Your task to perform on an android device: What's the weather going to be this weekend? Image 0: 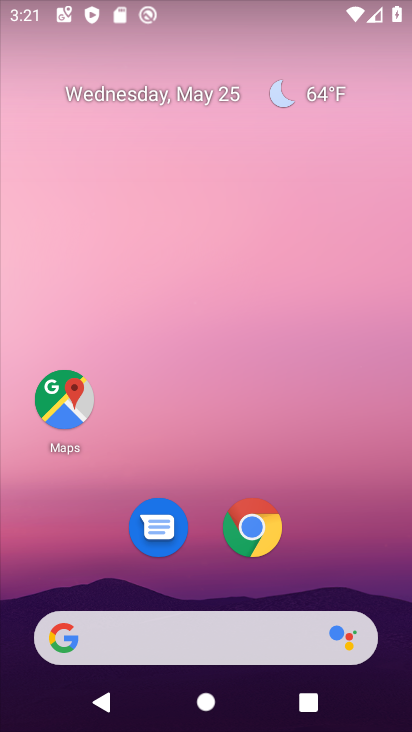
Step 0: click (278, 92)
Your task to perform on an android device: What's the weather going to be this weekend? Image 1: 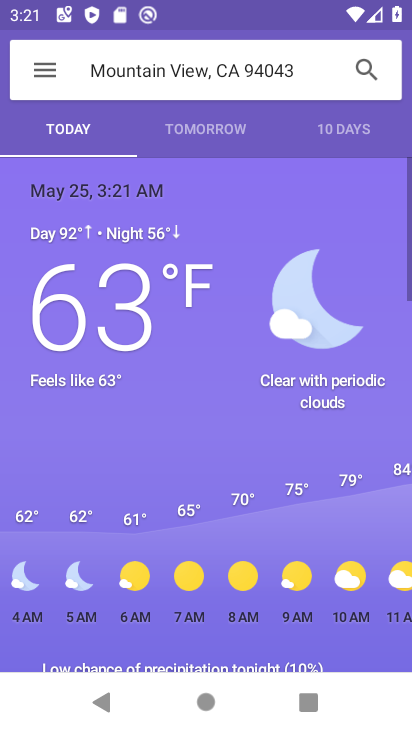
Step 1: click (325, 121)
Your task to perform on an android device: What's the weather going to be this weekend? Image 2: 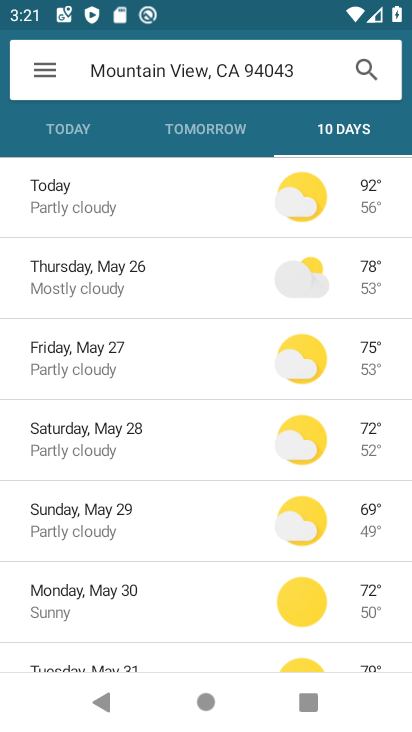
Step 2: task complete